Your task to perform on an android device: change the clock display to analog Image 0: 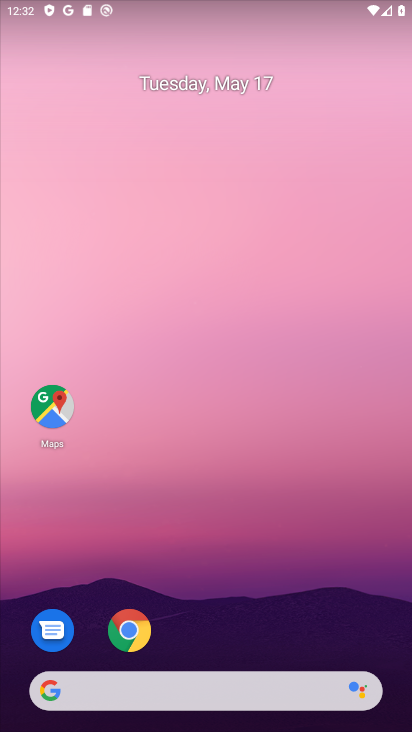
Step 0: drag from (253, 609) to (256, 154)
Your task to perform on an android device: change the clock display to analog Image 1: 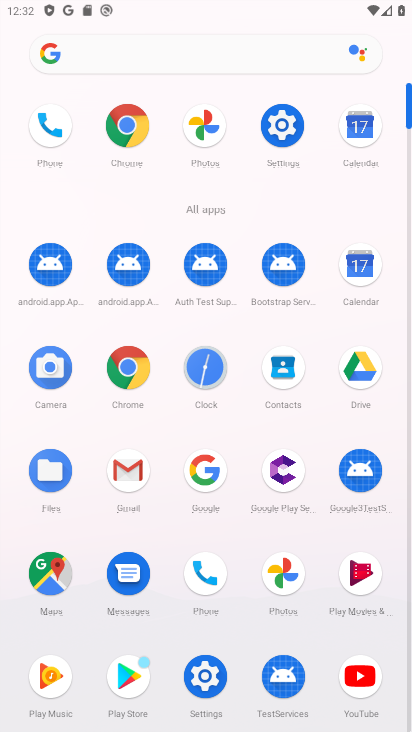
Step 1: click (213, 356)
Your task to perform on an android device: change the clock display to analog Image 2: 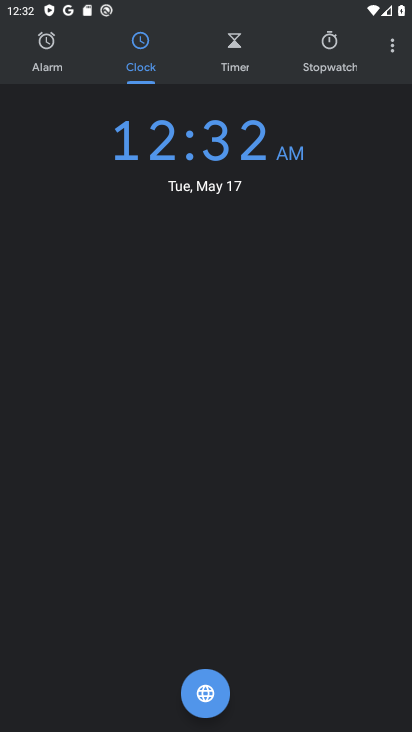
Step 2: click (384, 55)
Your task to perform on an android device: change the clock display to analog Image 3: 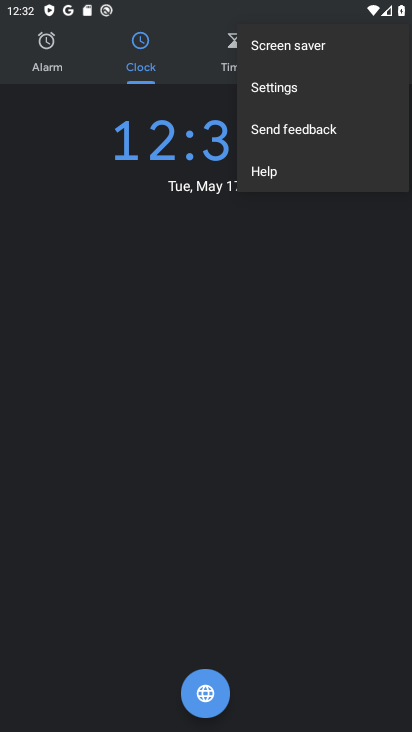
Step 3: click (325, 85)
Your task to perform on an android device: change the clock display to analog Image 4: 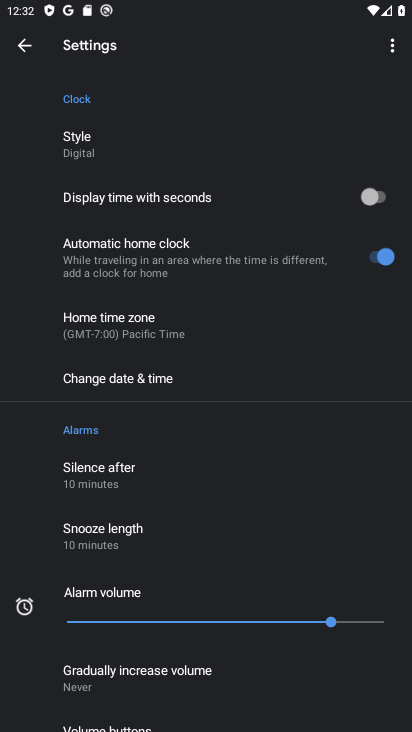
Step 4: click (83, 131)
Your task to perform on an android device: change the clock display to analog Image 5: 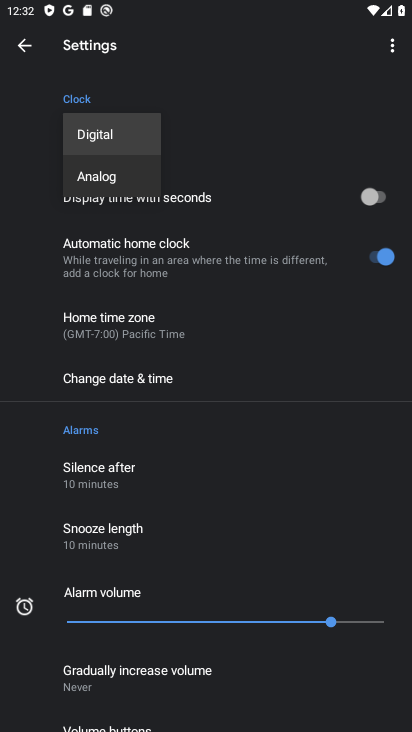
Step 5: click (123, 181)
Your task to perform on an android device: change the clock display to analog Image 6: 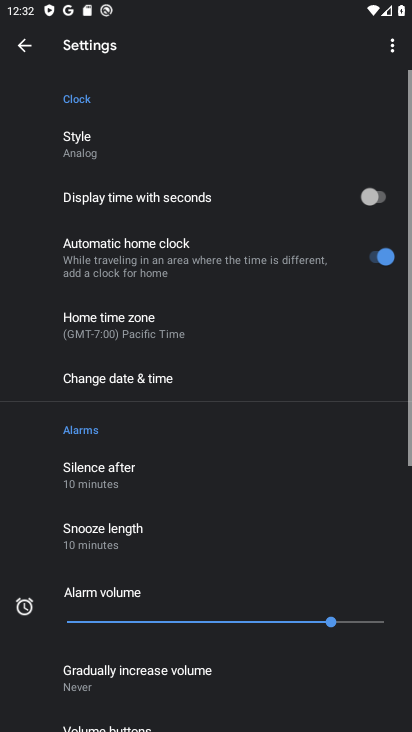
Step 6: task complete